Your task to perform on an android device: manage bookmarks in the chrome app Image 0: 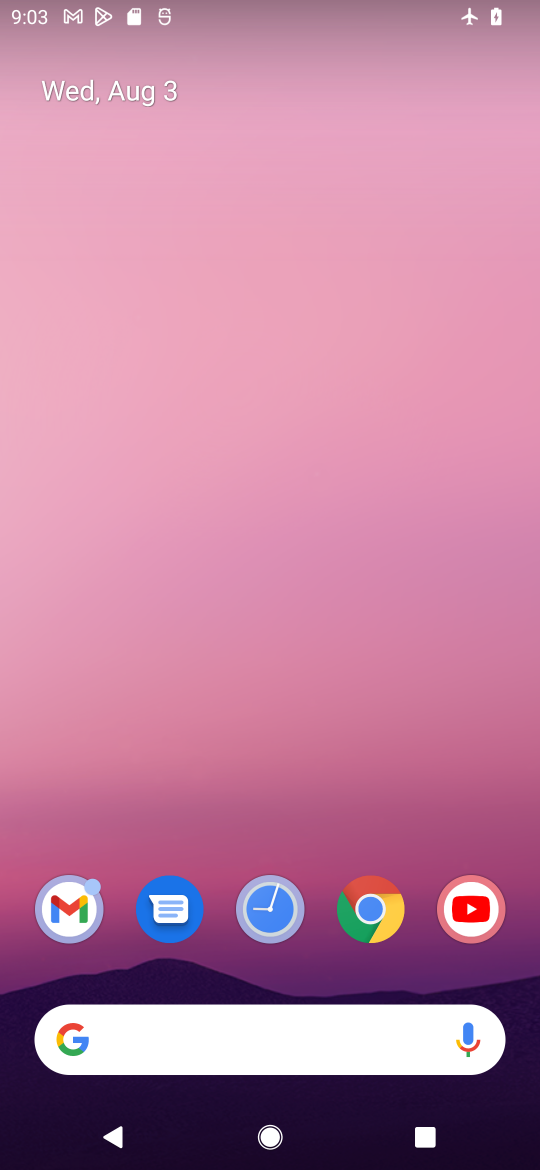
Step 0: press home button
Your task to perform on an android device: manage bookmarks in the chrome app Image 1: 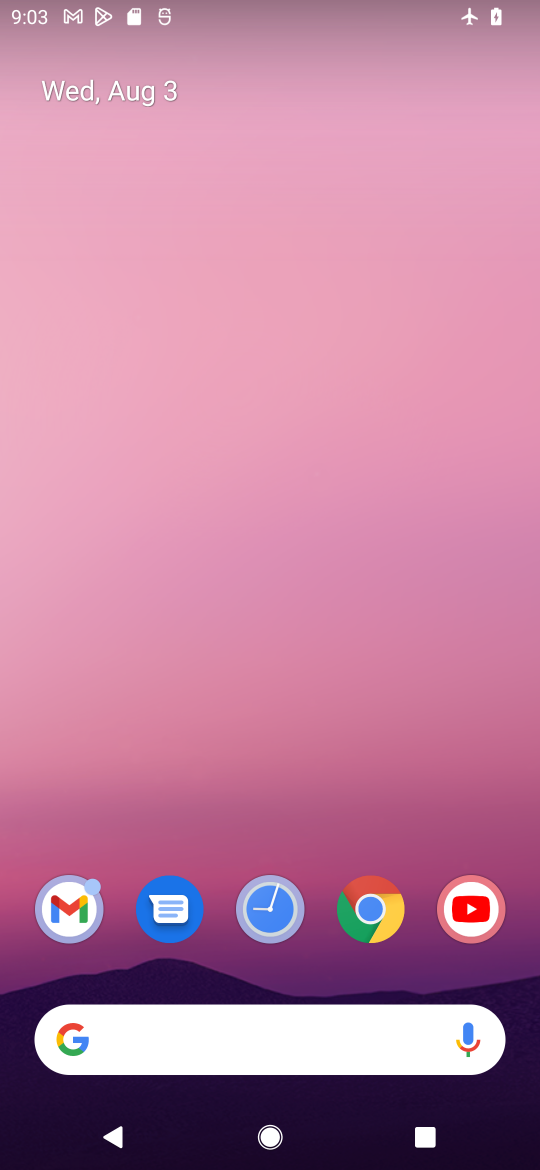
Step 1: drag from (402, 828) to (406, 140)
Your task to perform on an android device: manage bookmarks in the chrome app Image 2: 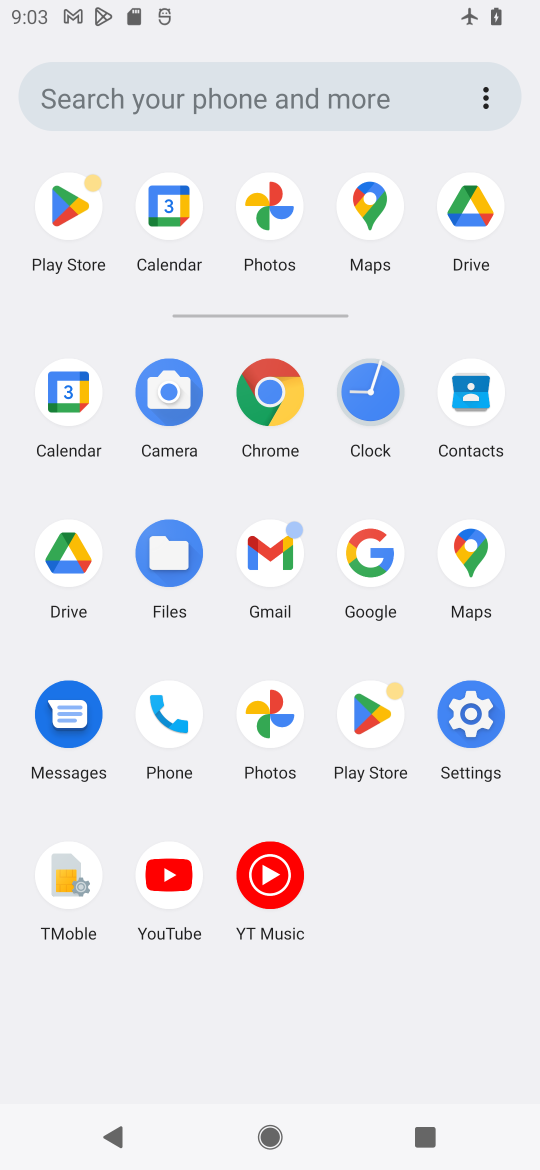
Step 2: click (282, 386)
Your task to perform on an android device: manage bookmarks in the chrome app Image 3: 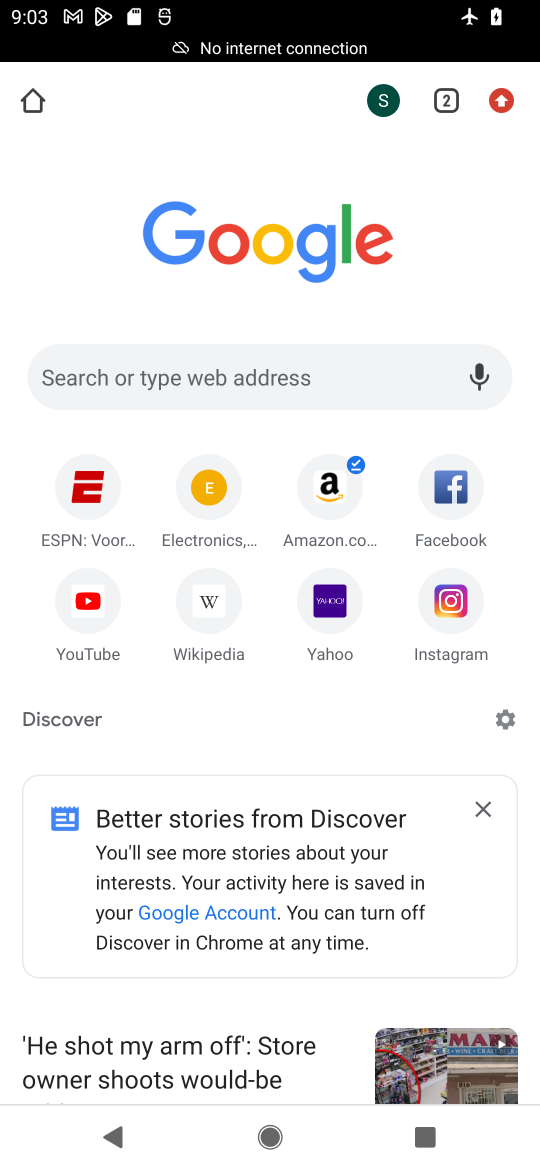
Step 3: click (498, 106)
Your task to perform on an android device: manage bookmarks in the chrome app Image 4: 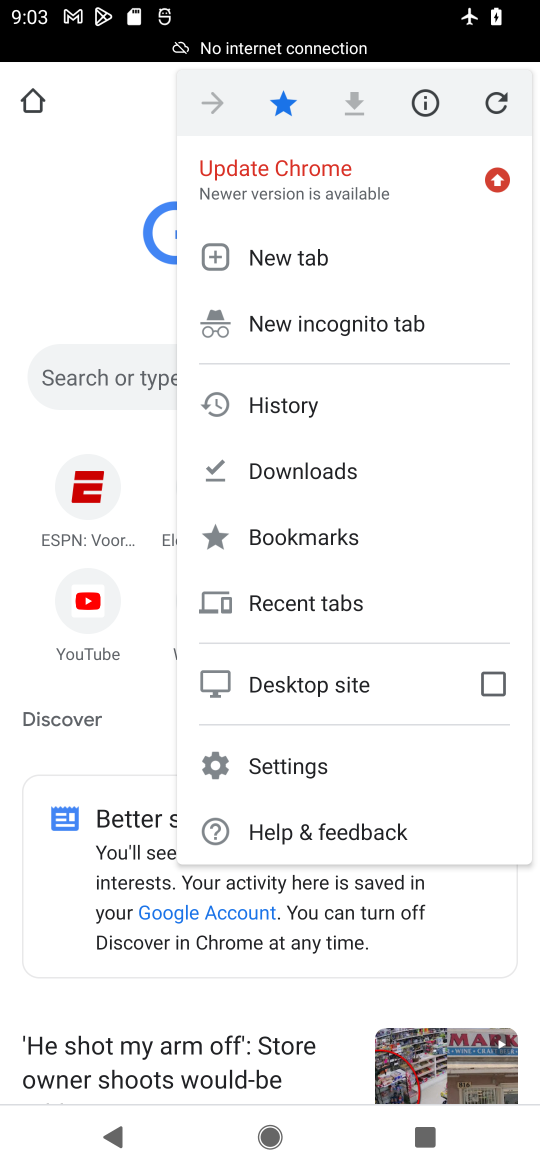
Step 4: click (334, 543)
Your task to perform on an android device: manage bookmarks in the chrome app Image 5: 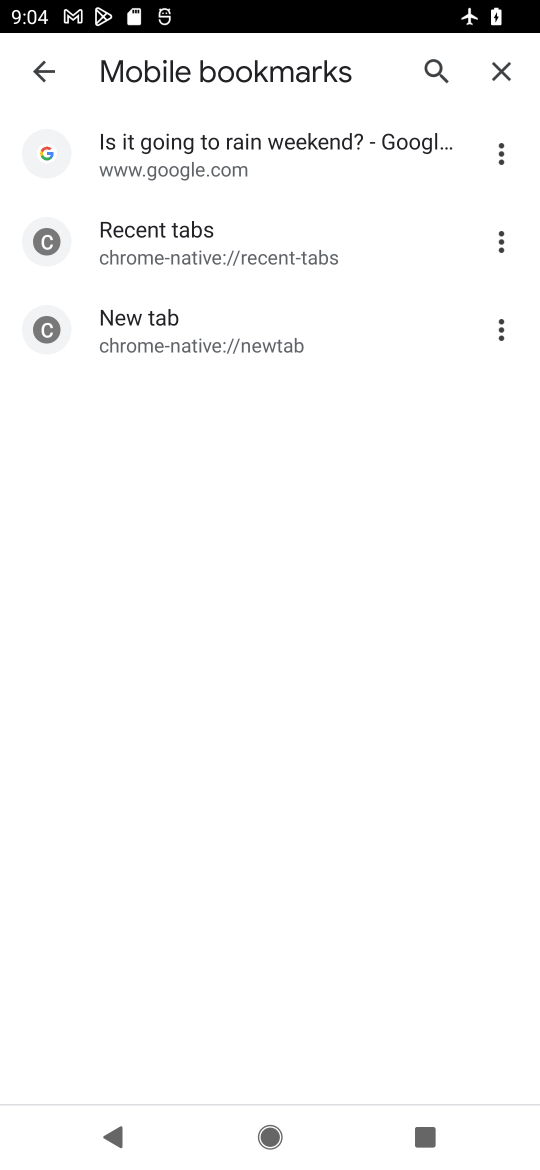
Step 5: click (500, 249)
Your task to perform on an android device: manage bookmarks in the chrome app Image 6: 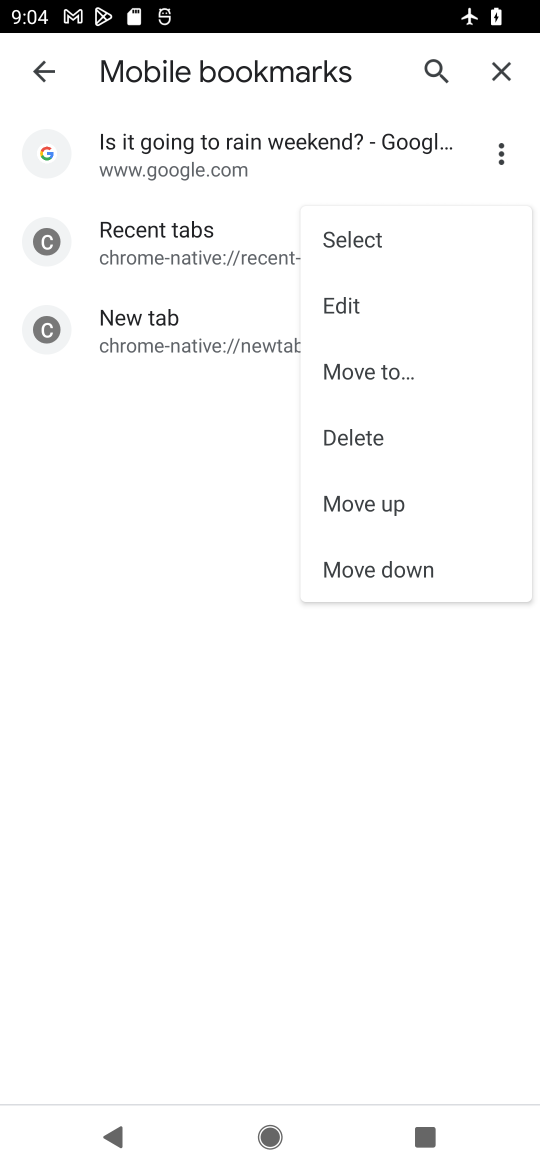
Step 6: click (376, 300)
Your task to perform on an android device: manage bookmarks in the chrome app Image 7: 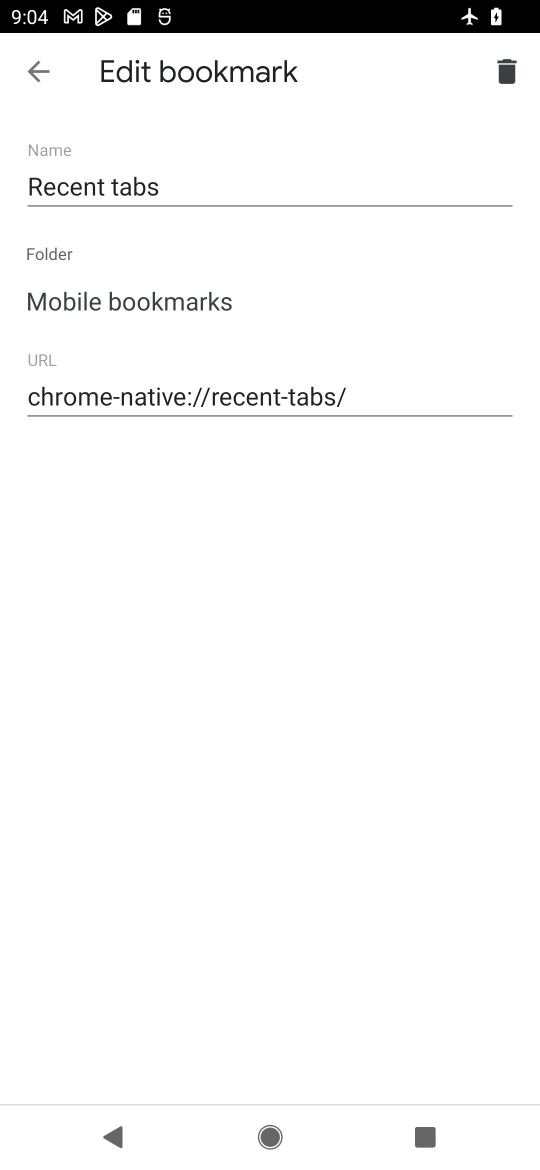
Step 7: click (240, 182)
Your task to perform on an android device: manage bookmarks in the chrome app Image 8: 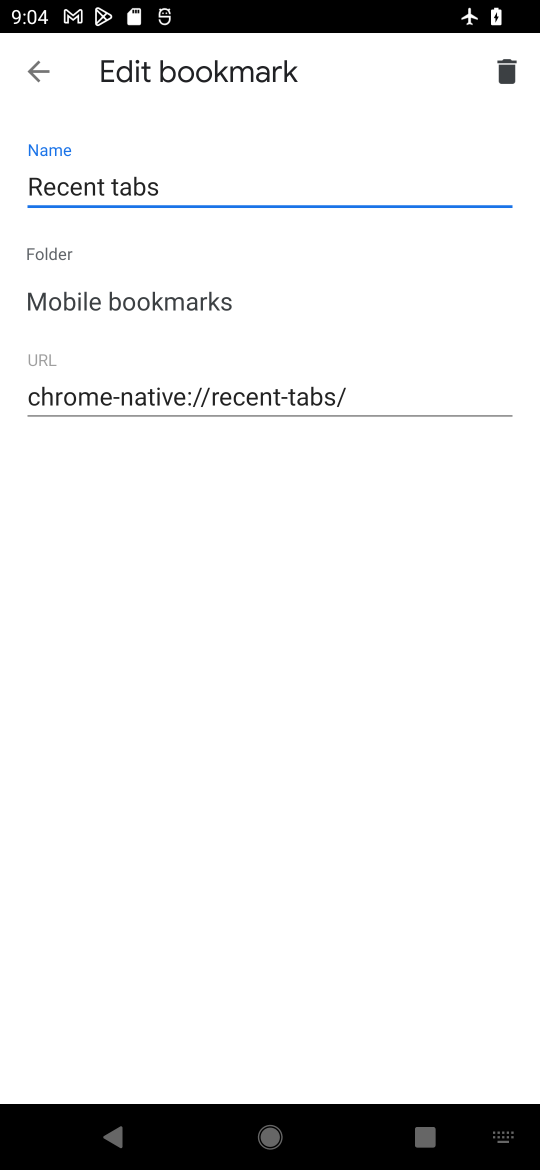
Step 8: type "s"
Your task to perform on an android device: manage bookmarks in the chrome app Image 9: 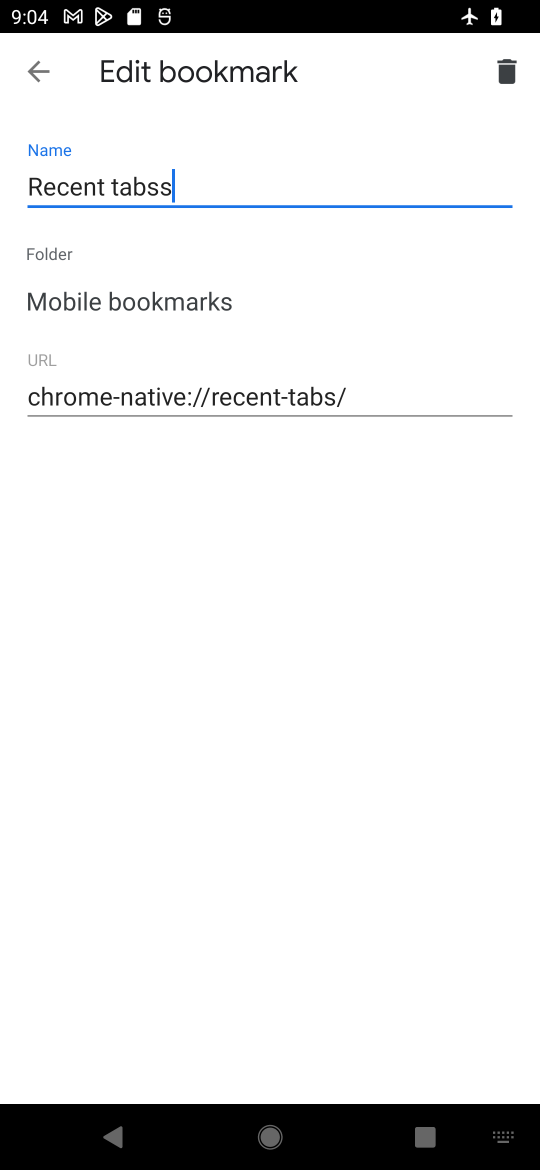
Step 9: click (38, 70)
Your task to perform on an android device: manage bookmarks in the chrome app Image 10: 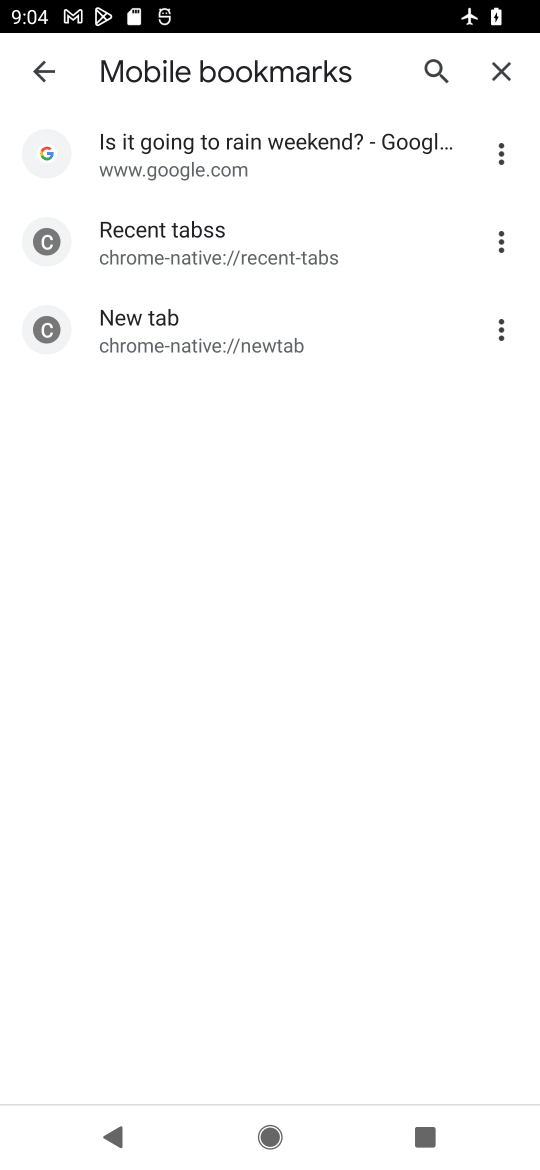
Step 10: task complete